Your task to perform on an android device: move an email to a new category in the gmail app Image 0: 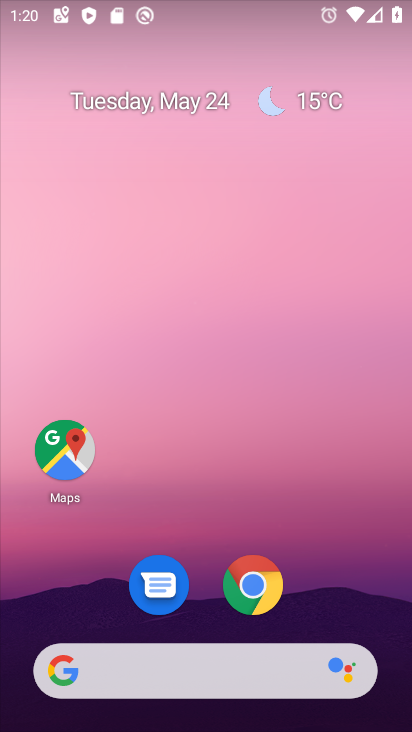
Step 0: drag from (288, 490) to (319, 58)
Your task to perform on an android device: move an email to a new category in the gmail app Image 1: 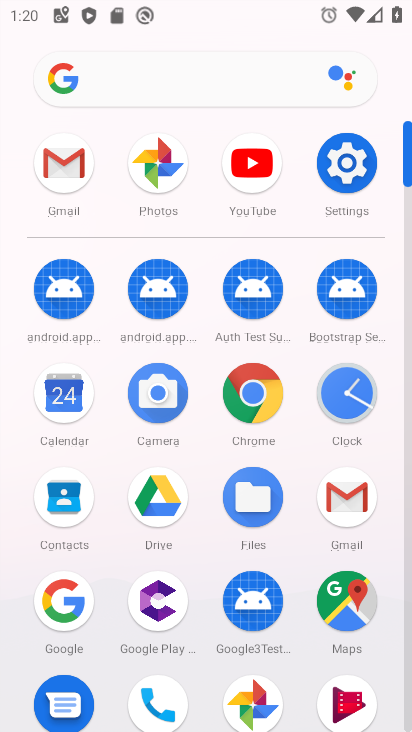
Step 1: click (89, 168)
Your task to perform on an android device: move an email to a new category in the gmail app Image 2: 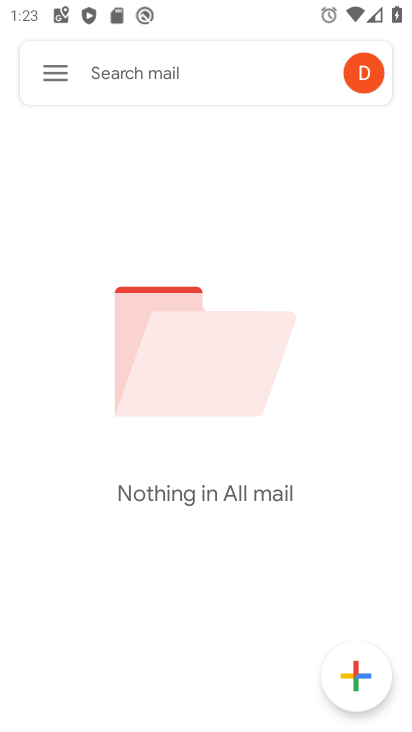
Step 2: task complete